Your task to perform on an android device: open wifi settings Image 0: 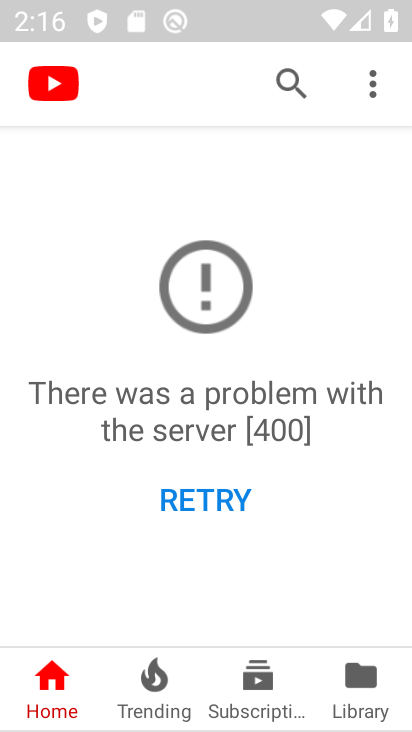
Step 0: press home button
Your task to perform on an android device: open wifi settings Image 1: 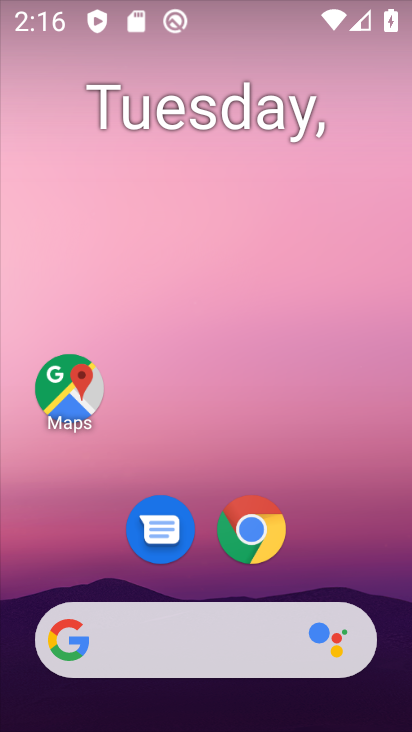
Step 1: drag from (211, 561) to (181, 51)
Your task to perform on an android device: open wifi settings Image 2: 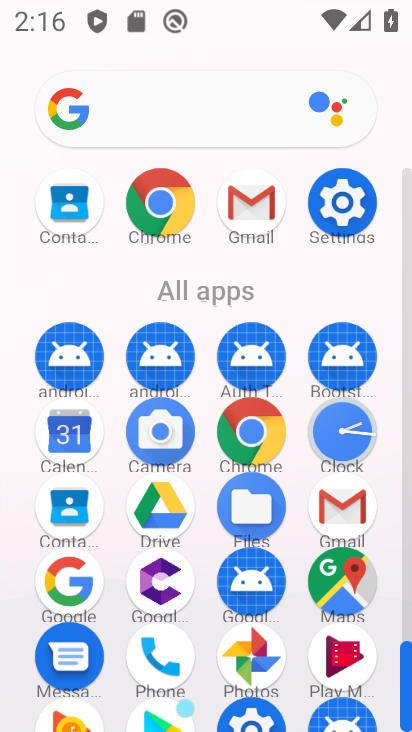
Step 2: click (341, 189)
Your task to perform on an android device: open wifi settings Image 3: 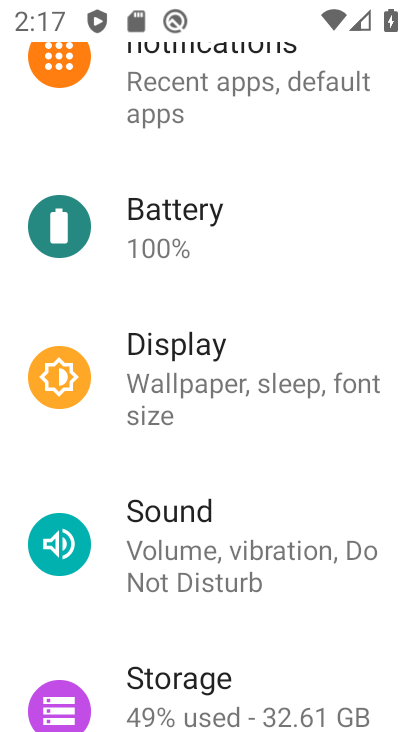
Step 3: drag from (236, 202) to (265, 635)
Your task to perform on an android device: open wifi settings Image 4: 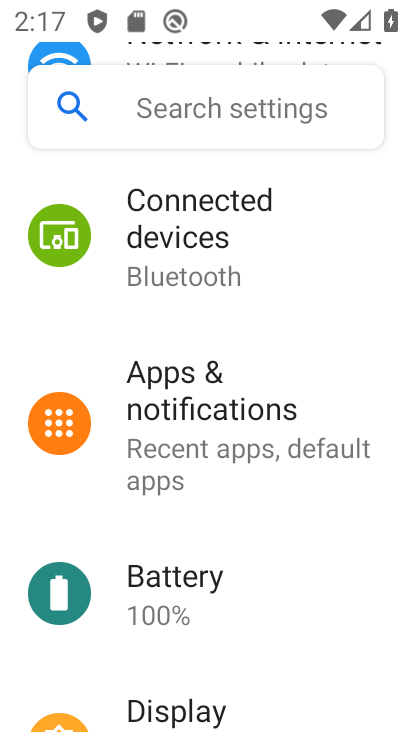
Step 4: drag from (187, 400) to (166, 602)
Your task to perform on an android device: open wifi settings Image 5: 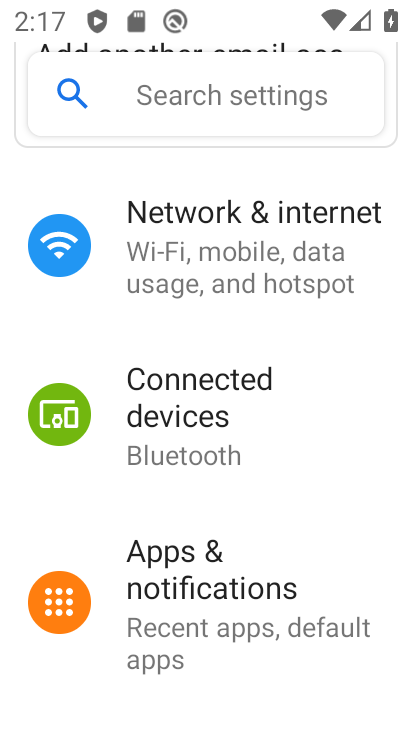
Step 5: click (151, 240)
Your task to perform on an android device: open wifi settings Image 6: 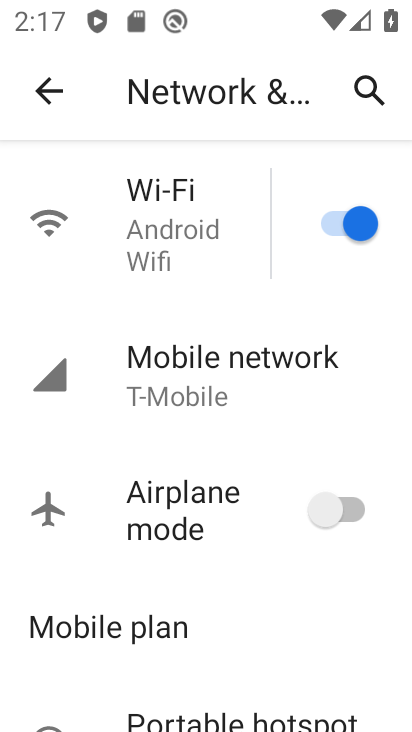
Step 6: click (142, 245)
Your task to perform on an android device: open wifi settings Image 7: 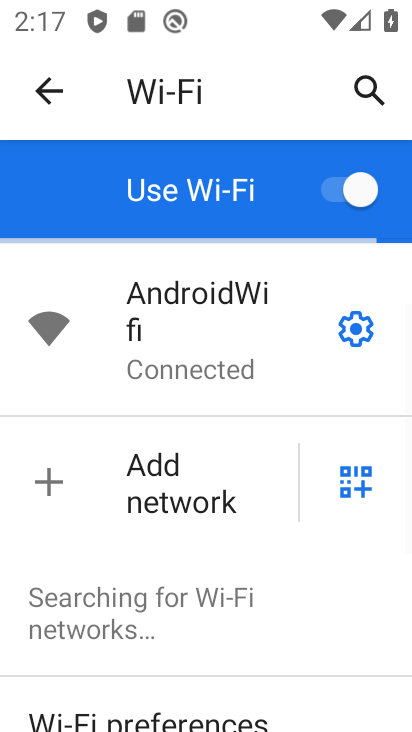
Step 7: task complete